Your task to perform on an android device: turn smart compose on in the gmail app Image 0: 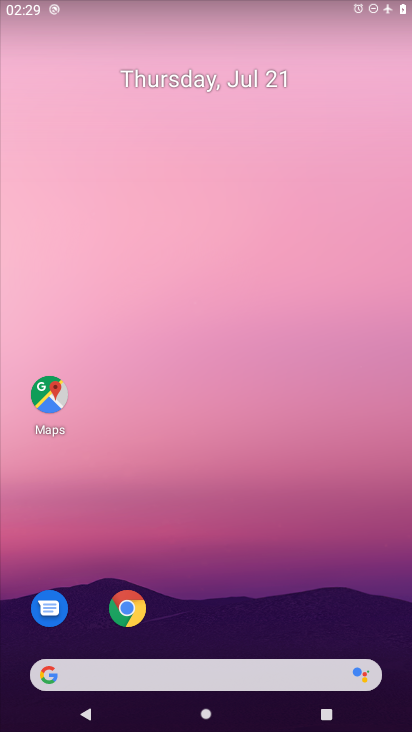
Step 0: press home button
Your task to perform on an android device: turn smart compose on in the gmail app Image 1: 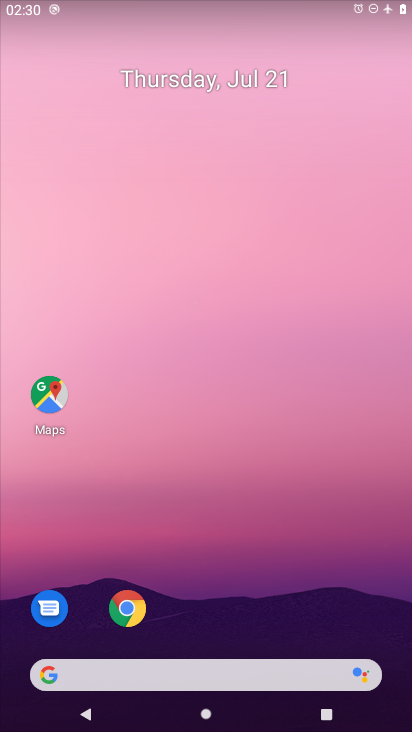
Step 1: drag from (237, 573) to (302, 9)
Your task to perform on an android device: turn smart compose on in the gmail app Image 2: 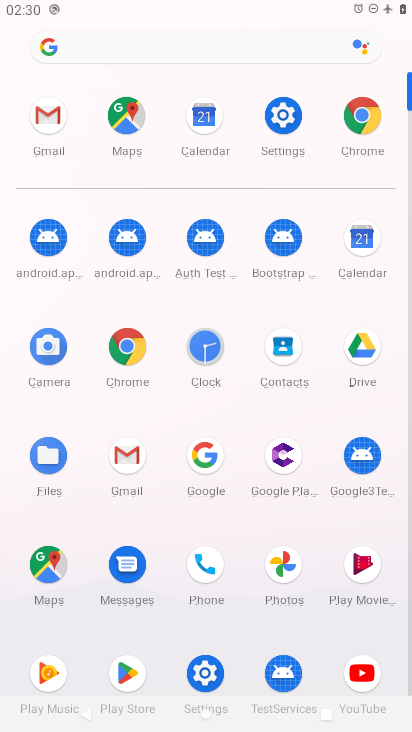
Step 2: click (49, 127)
Your task to perform on an android device: turn smart compose on in the gmail app Image 3: 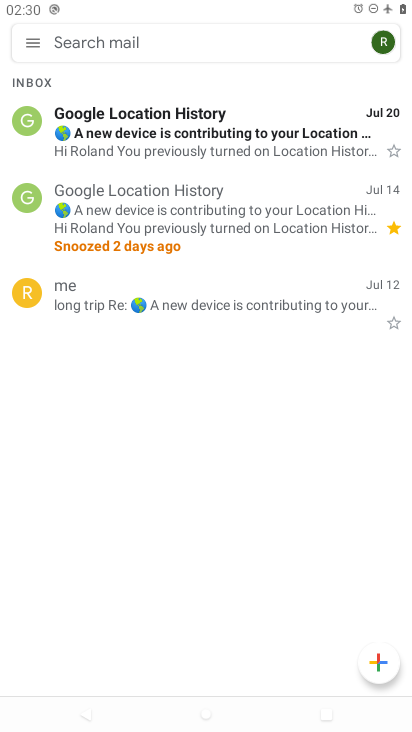
Step 3: click (31, 36)
Your task to perform on an android device: turn smart compose on in the gmail app Image 4: 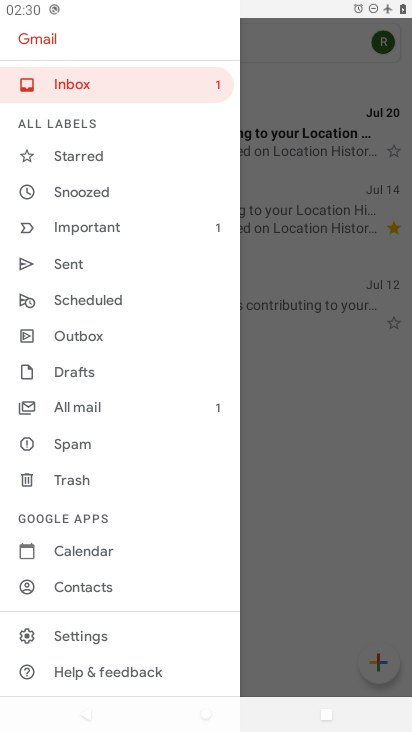
Step 4: click (77, 637)
Your task to perform on an android device: turn smart compose on in the gmail app Image 5: 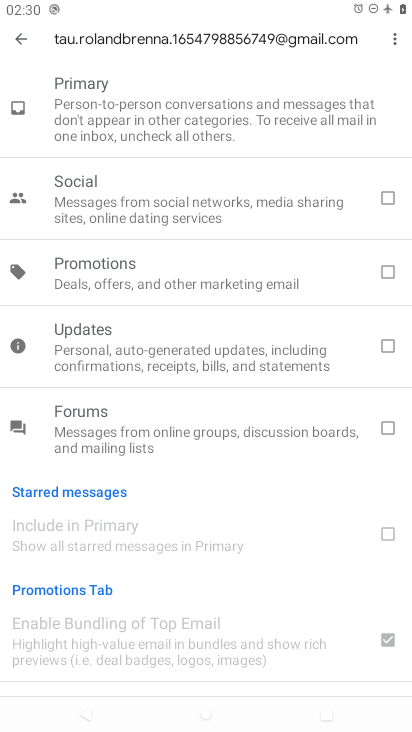
Step 5: click (22, 37)
Your task to perform on an android device: turn smart compose on in the gmail app Image 6: 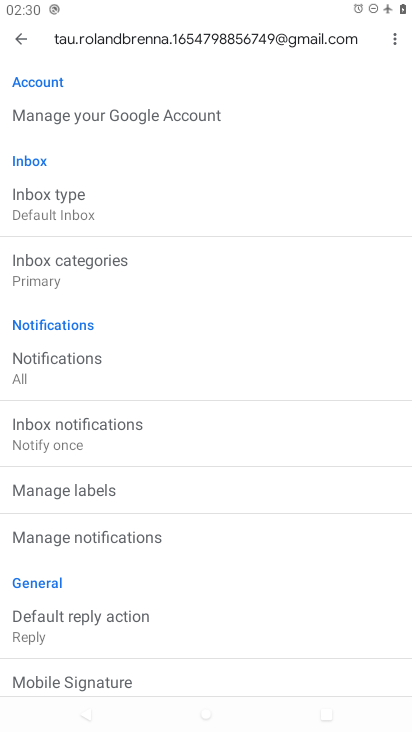
Step 6: task complete